Your task to perform on an android device: manage bookmarks in the chrome app Image 0: 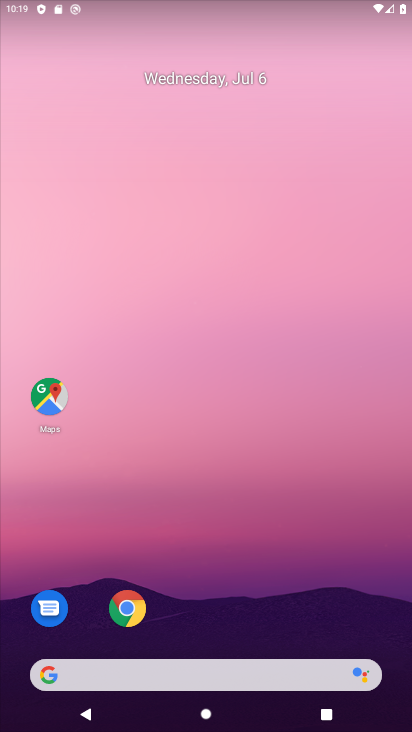
Step 0: press home button
Your task to perform on an android device: manage bookmarks in the chrome app Image 1: 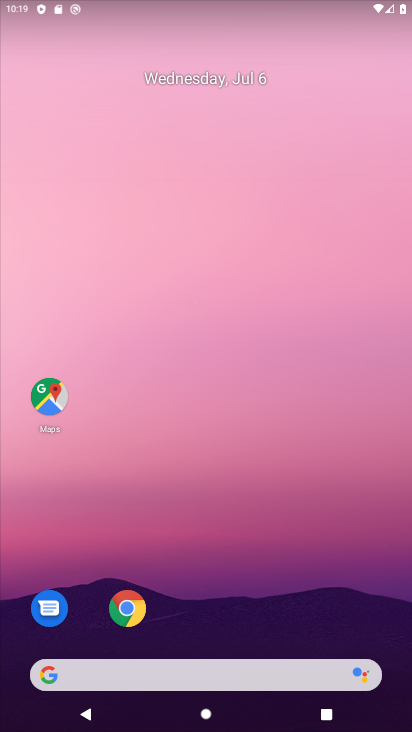
Step 1: drag from (174, 639) to (228, 6)
Your task to perform on an android device: manage bookmarks in the chrome app Image 2: 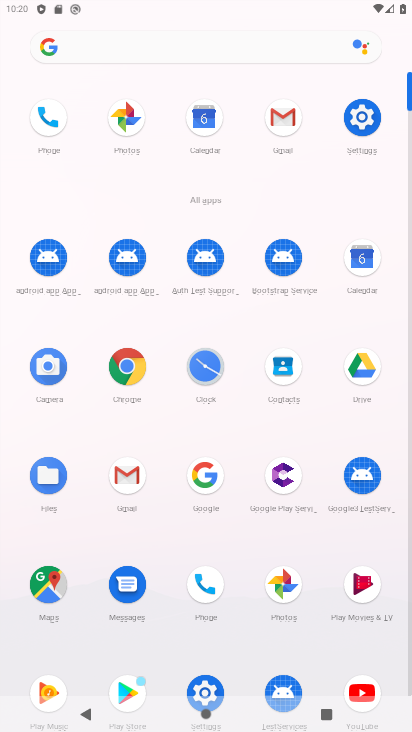
Step 2: click (124, 368)
Your task to perform on an android device: manage bookmarks in the chrome app Image 3: 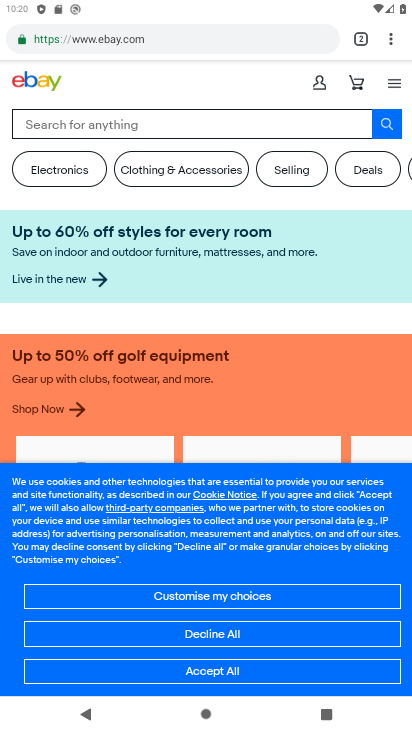
Step 3: click (389, 28)
Your task to perform on an android device: manage bookmarks in the chrome app Image 4: 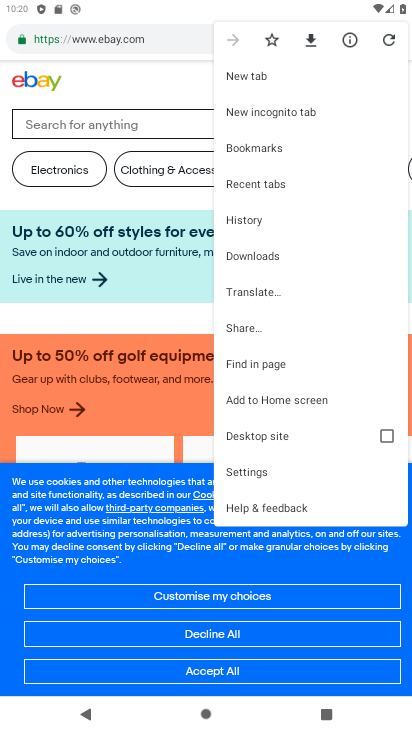
Step 4: click (278, 470)
Your task to perform on an android device: manage bookmarks in the chrome app Image 5: 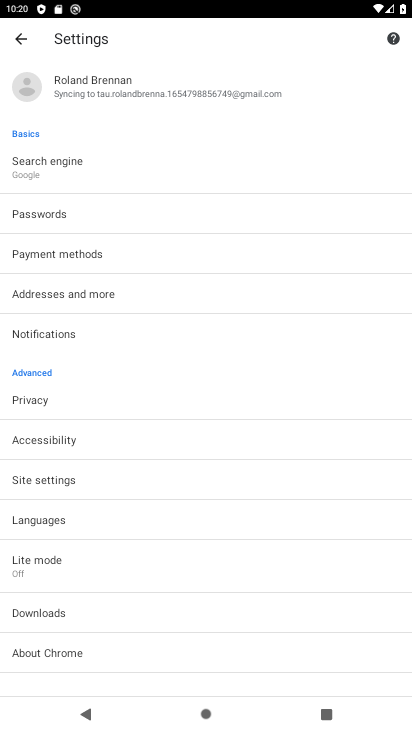
Step 5: click (16, 31)
Your task to perform on an android device: manage bookmarks in the chrome app Image 6: 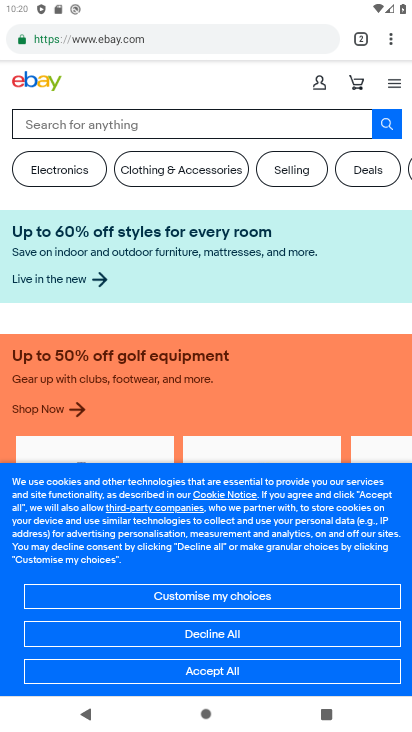
Step 6: click (390, 37)
Your task to perform on an android device: manage bookmarks in the chrome app Image 7: 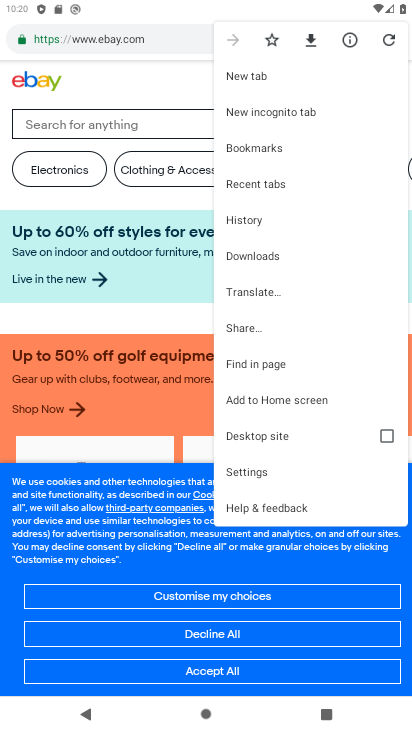
Step 7: click (264, 145)
Your task to perform on an android device: manage bookmarks in the chrome app Image 8: 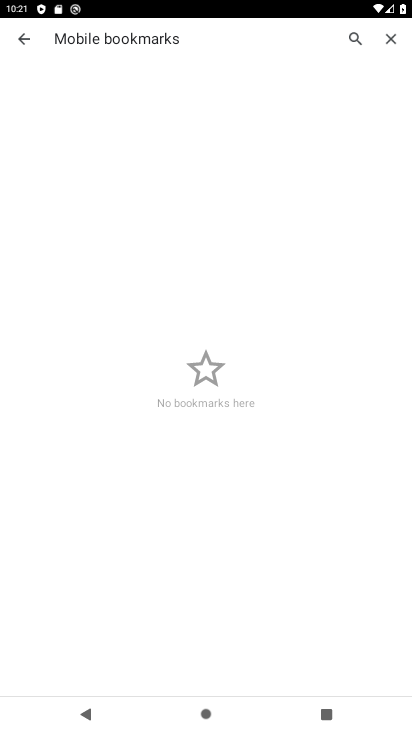
Step 8: task complete